Your task to perform on an android device: turn on sleep mode Image 0: 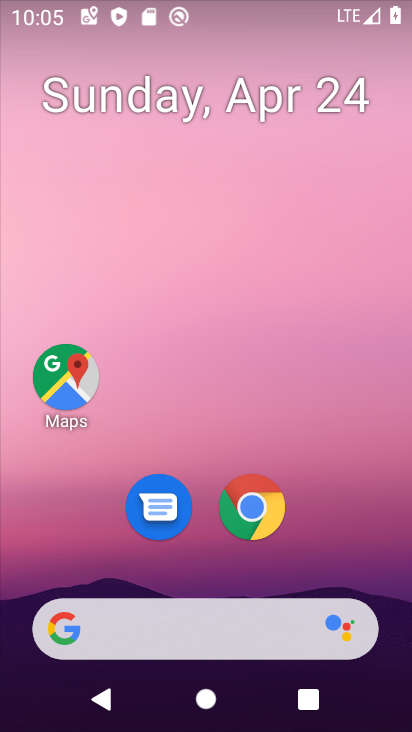
Step 0: drag from (215, 579) to (240, 128)
Your task to perform on an android device: turn on sleep mode Image 1: 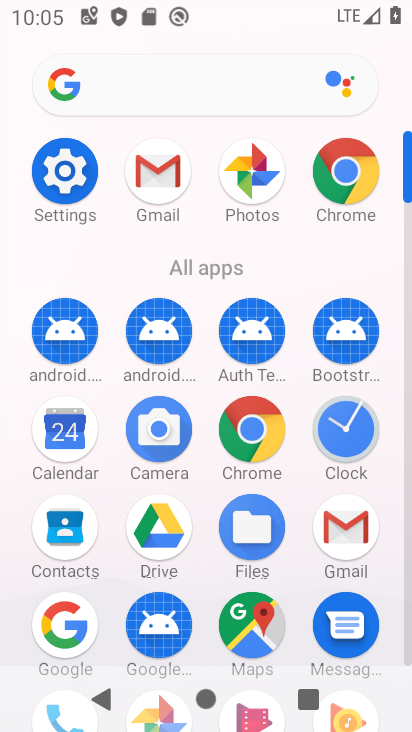
Step 1: drag from (203, 655) to (263, 120)
Your task to perform on an android device: turn on sleep mode Image 2: 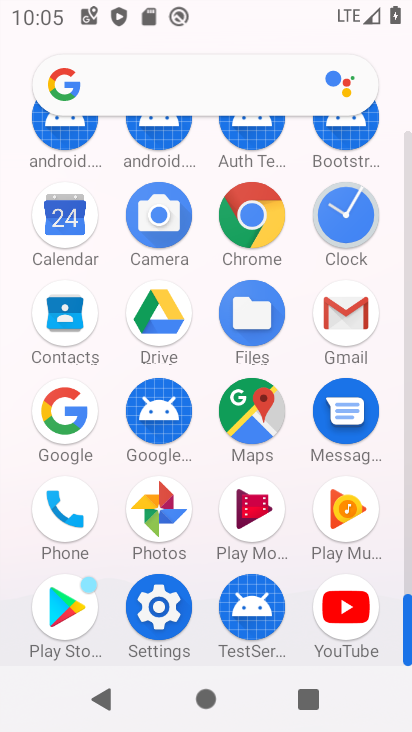
Step 2: click (162, 616)
Your task to perform on an android device: turn on sleep mode Image 3: 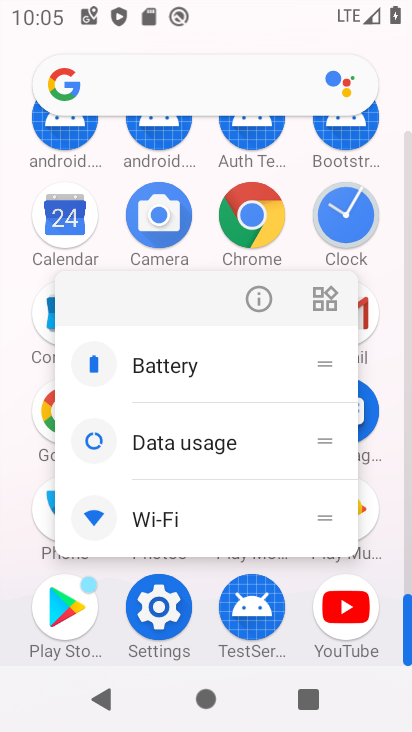
Step 3: click (263, 297)
Your task to perform on an android device: turn on sleep mode Image 4: 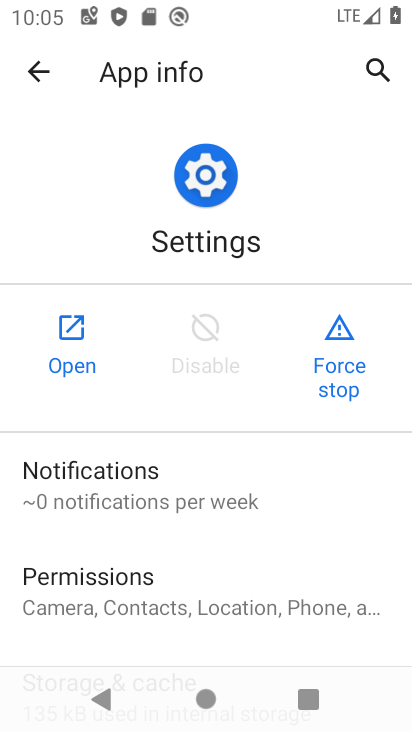
Step 4: click (84, 357)
Your task to perform on an android device: turn on sleep mode Image 5: 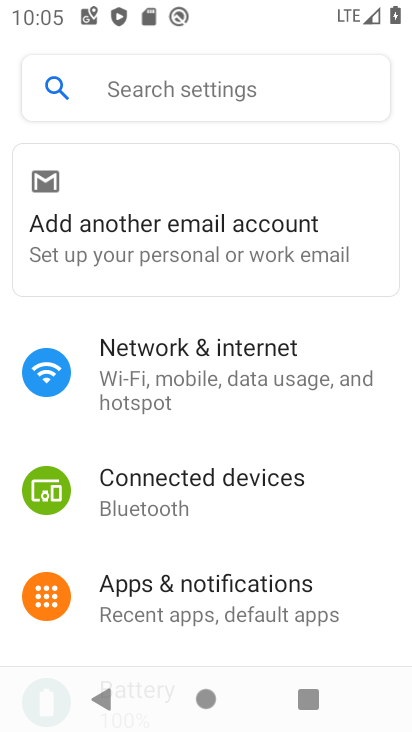
Step 5: drag from (213, 524) to (230, 227)
Your task to perform on an android device: turn on sleep mode Image 6: 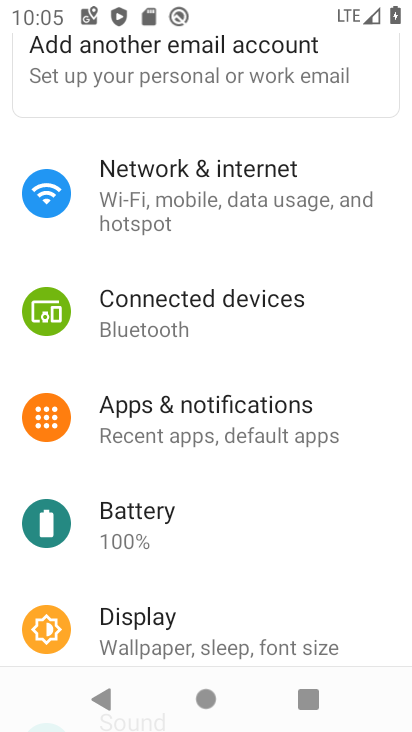
Step 6: click (204, 629)
Your task to perform on an android device: turn on sleep mode Image 7: 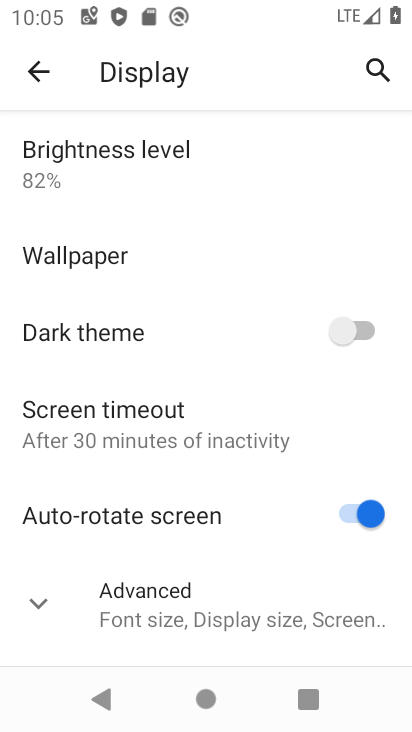
Step 7: task complete